Your task to perform on an android device: turn on airplane mode Image 0: 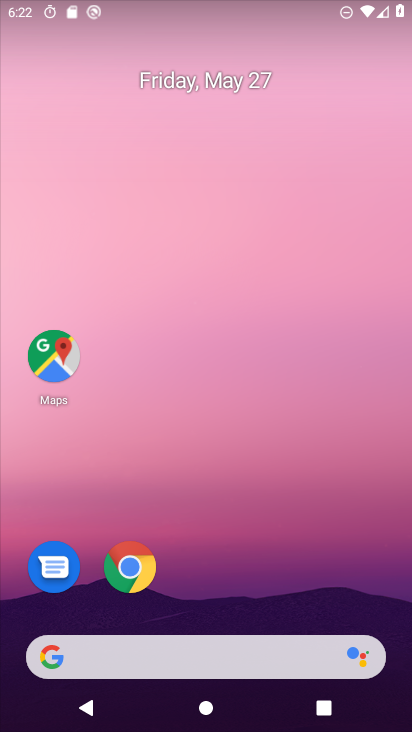
Step 0: drag from (264, 553) to (251, 52)
Your task to perform on an android device: turn on airplane mode Image 1: 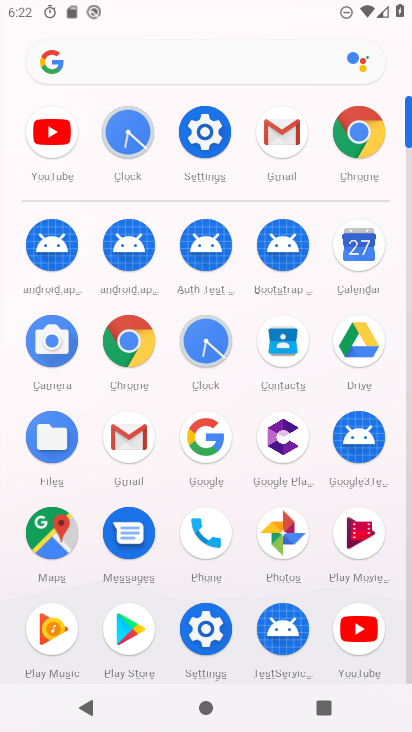
Step 1: click (192, 633)
Your task to perform on an android device: turn on airplane mode Image 2: 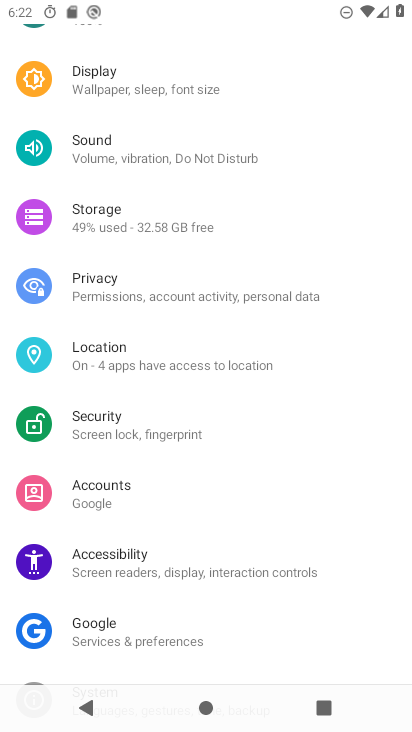
Step 2: drag from (163, 162) to (161, 403)
Your task to perform on an android device: turn on airplane mode Image 3: 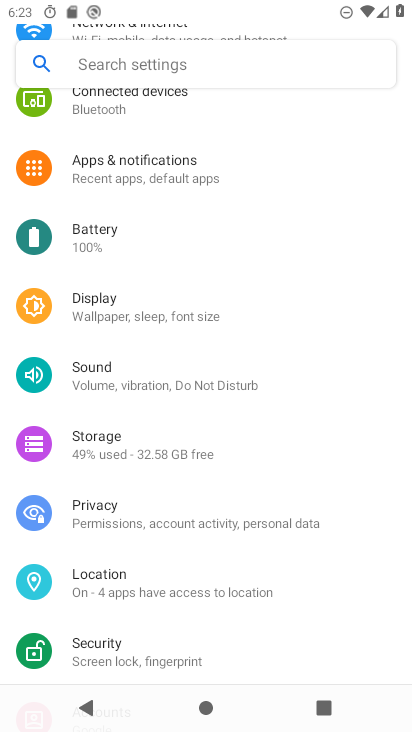
Step 3: drag from (176, 246) to (182, 447)
Your task to perform on an android device: turn on airplane mode Image 4: 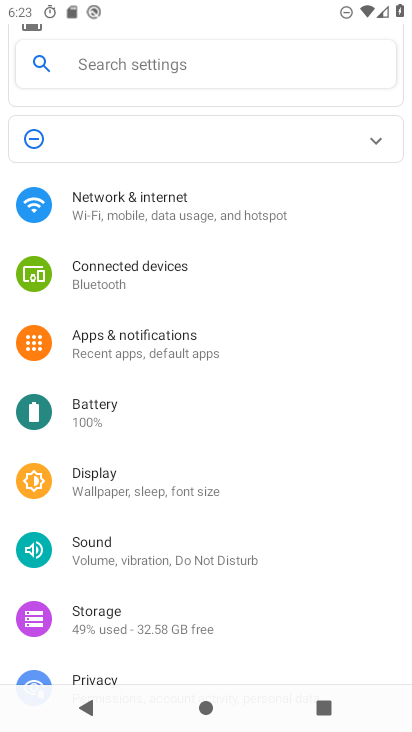
Step 4: click (145, 208)
Your task to perform on an android device: turn on airplane mode Image 5: 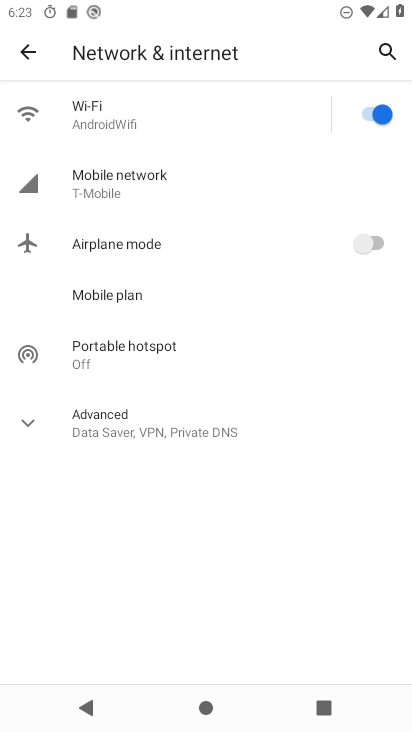
Step 5: click (377, 245)
Your task to perform on an android device: turn on airplane mode Image 6: 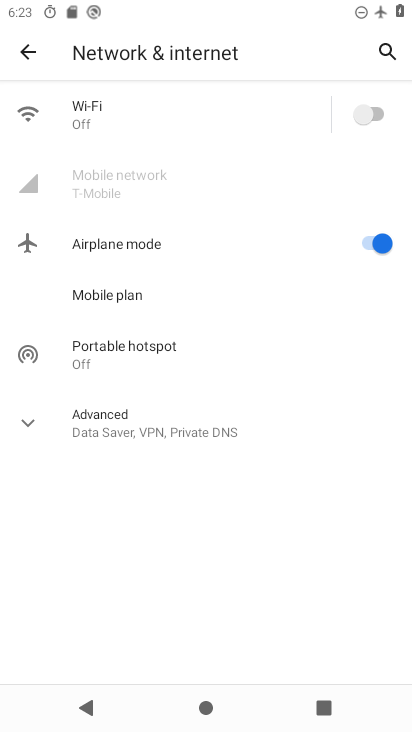
Step 6: task complete